Your task to perform on an android device: Open Wikipedia Image 0: 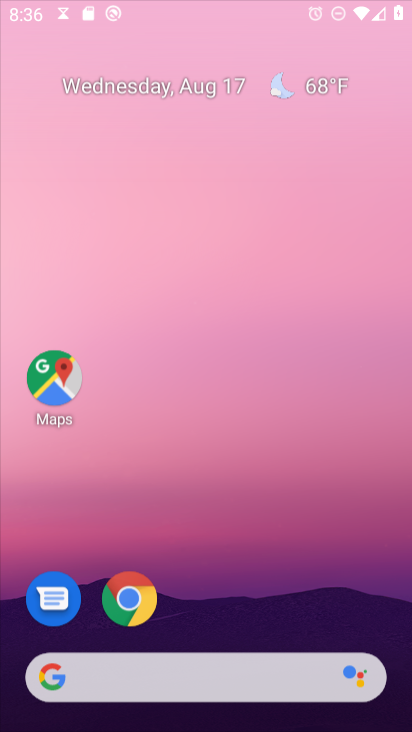
Step 0: press home button
Your task to perform on an android device: Open Wikipedia Image 1: 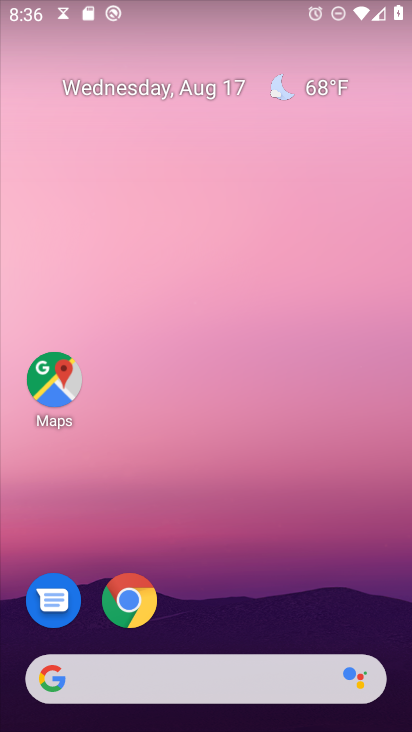
Step 1: drag from (260, 616) to (262, 118)
Your task to perform on an android device: Open Wikipedia Image 2: 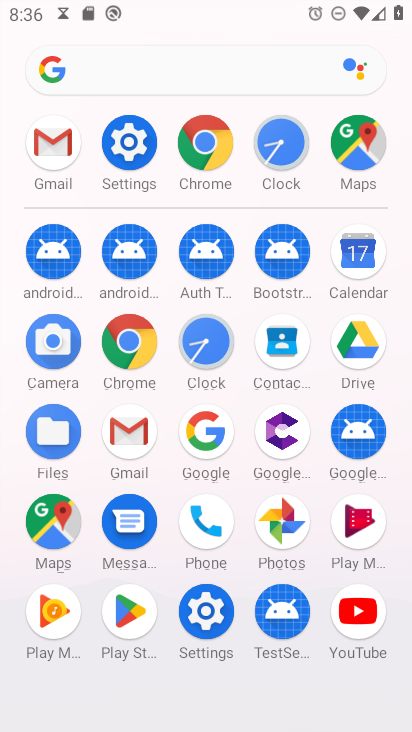
Step 2: click (212, 430)
Your task to perform on an android device: Open Wikipedia Image 3: 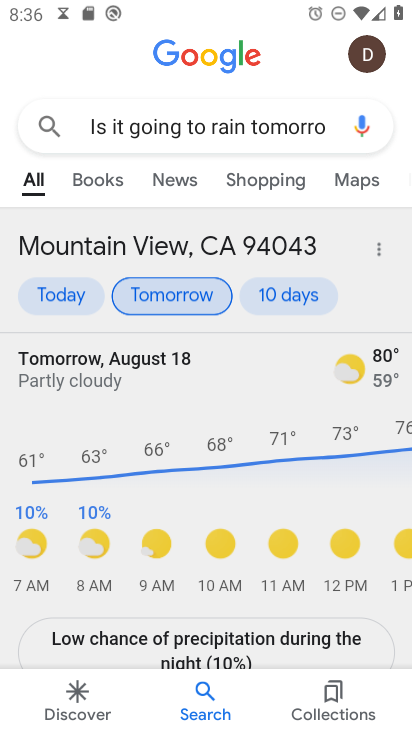
Step 3: click (335, 120)
Your task to perform on an android device: Open Wikipedia Image 4: 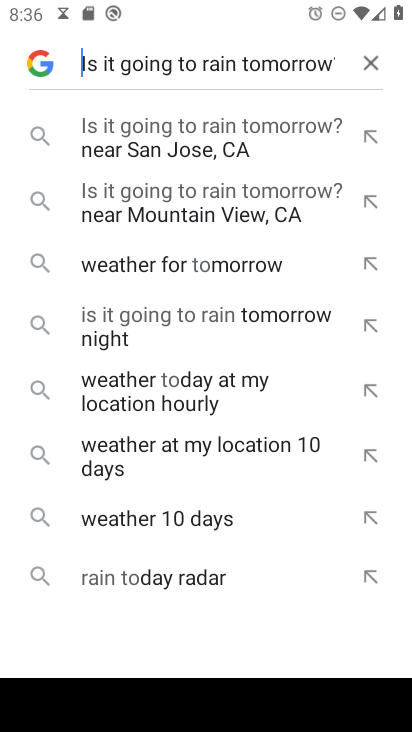
Step 4: click (366, 60)
Your task to perform on an android device: Open Wikipedia Image 5: 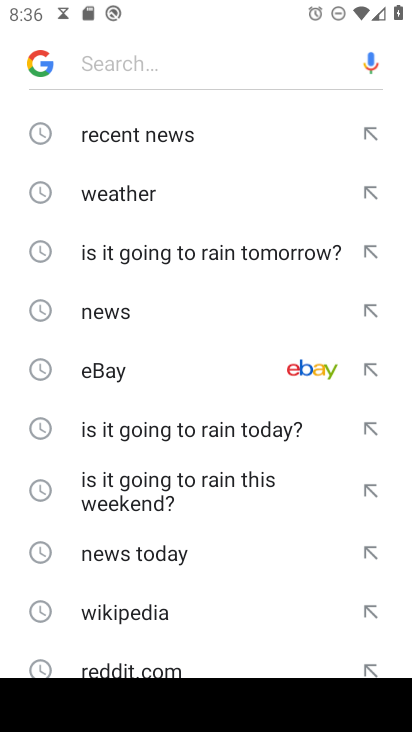
Step 5: click (138, 66)
Your task to perform on an android device: Open Wikipedia Image 6: 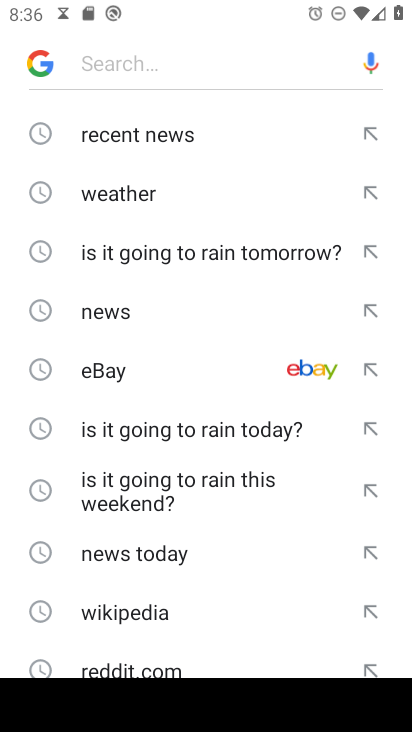
Step 6: type "Wikipedia"
Your task to perform on an android device: Open Wikipedia Image 7: 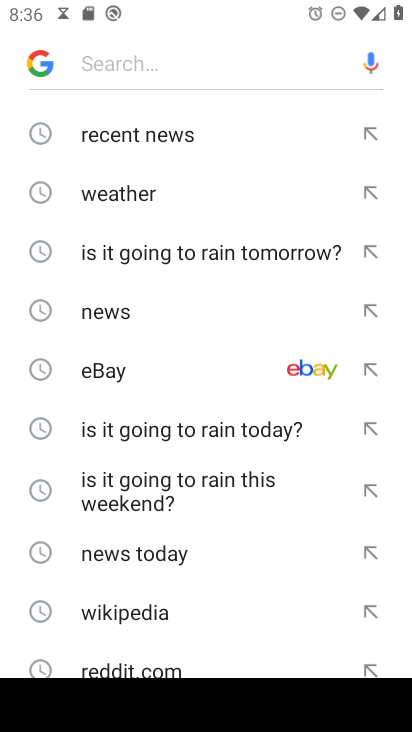
Step 7: click (138, 66)
Your task to perform on an android device: Open Wikipedia Image 8: 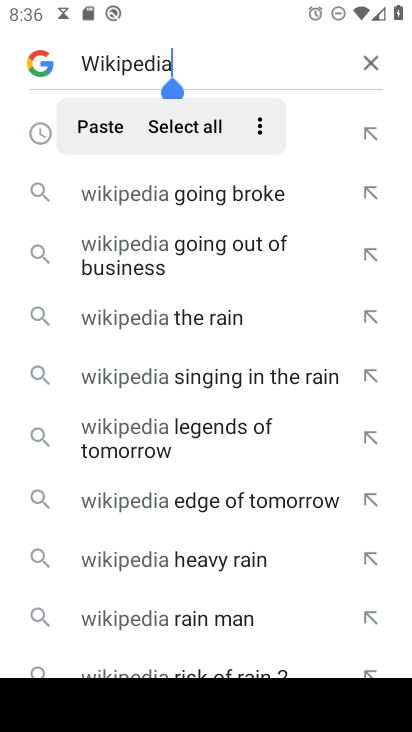
Step 8: click (40, 135)
Your task to perform on an android device: Open Wikipedia Image 9: 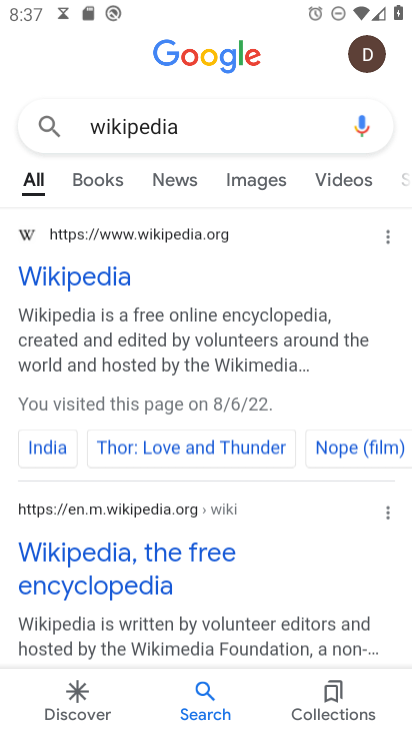
Step 9: click (70, 275)
Your task to perform on an android device: Open Wikipedia Image 10: 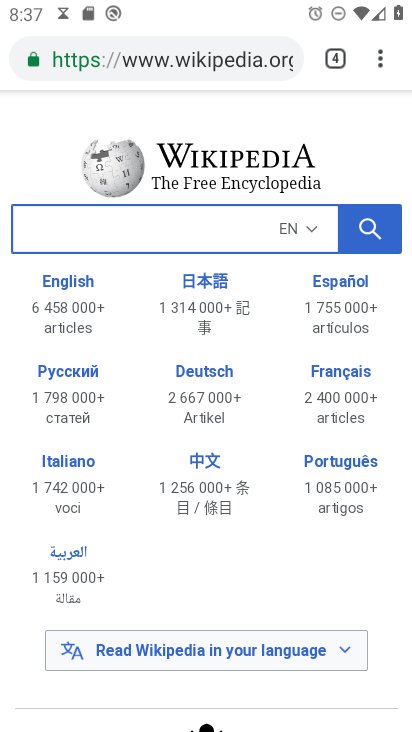
Step 10: task complete